Your task to perform on an android device: Go to Reddit.com Image 0: 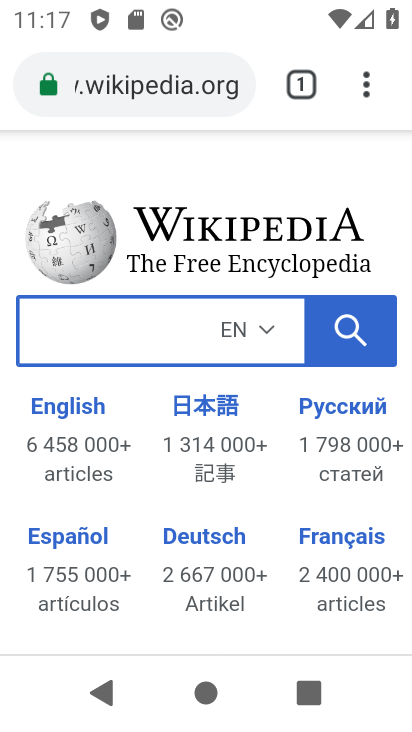
Step 0: click (186, 81)
Your task to perform on an android device: Go to Reddit.com Image 1: 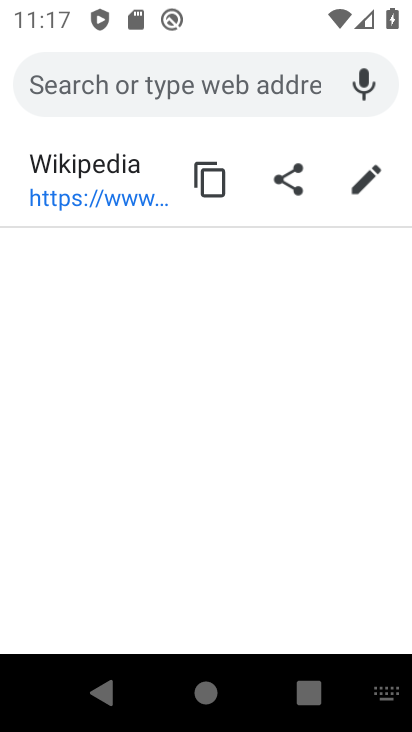
Step 1: type "Reddit.com"
Your task to perform on an android device: Go to Reddit.com Image 2: 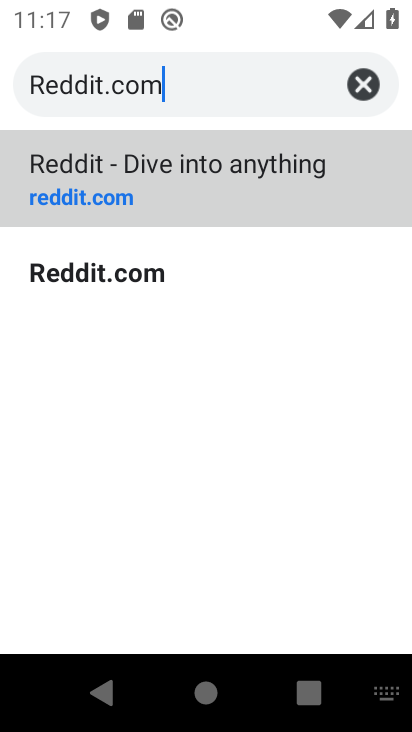
Step 2: type ""
Your task to perform on an android device: Go to Reddit.com Image 3: 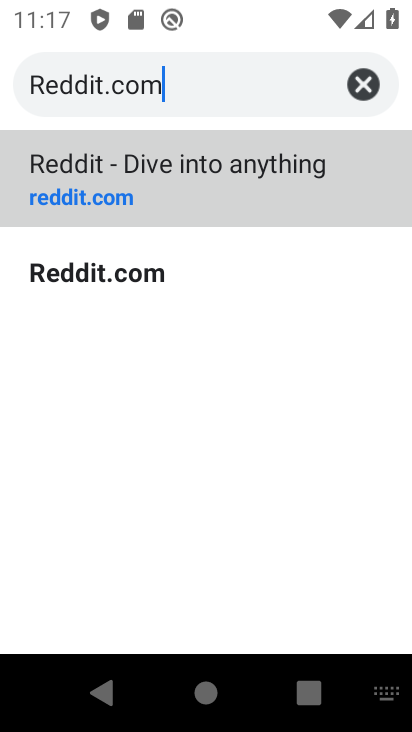
Step 3: click (173, 186)
Your task to perform on an android device: Go to Reddit.com Image 4: 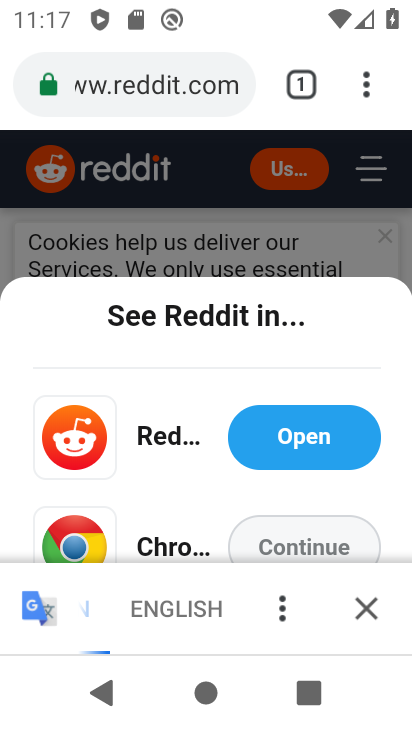
Step 4: click (364, 609)
Your task to perform on an android device: Go to Reddit.com Image 5: 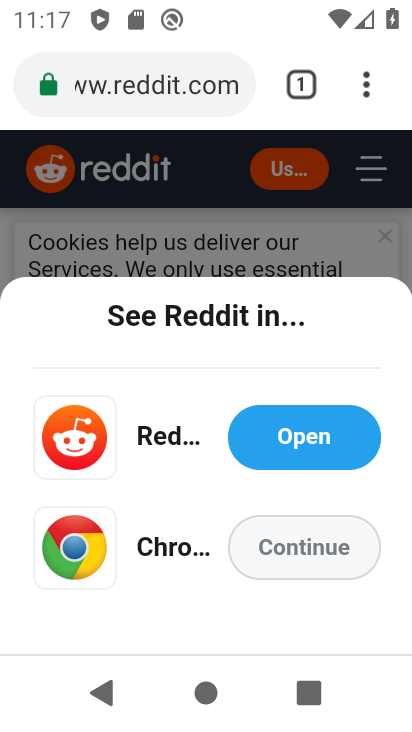
Step 5: task complete